Your task to perform on an android device: Search for sushi restaurants on Maps Image 0: 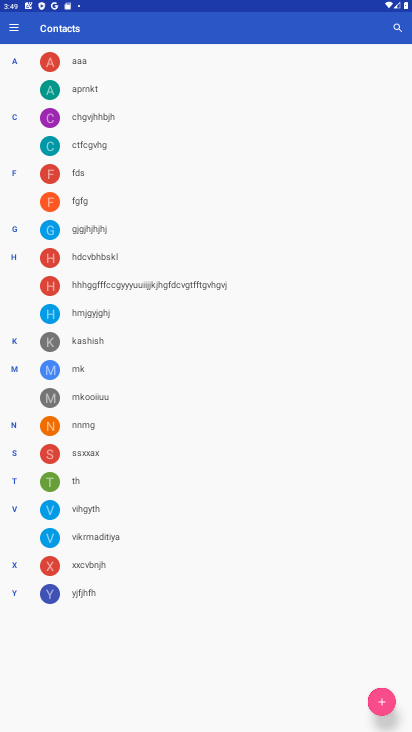
Step 0: press home button
Your task to perform on an android device: Search for sushi restaurants on Maps Image 1: 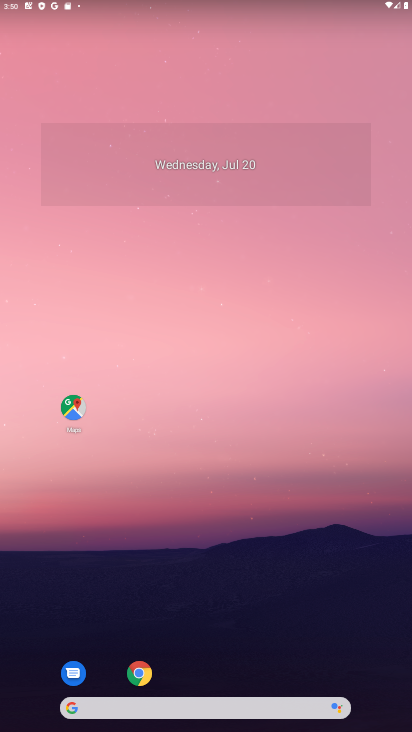
Step 1: drag from (249, 667) to (322, 5)
Your task to perform on an android device: Search for sushi restaurants on Maps Image 2: 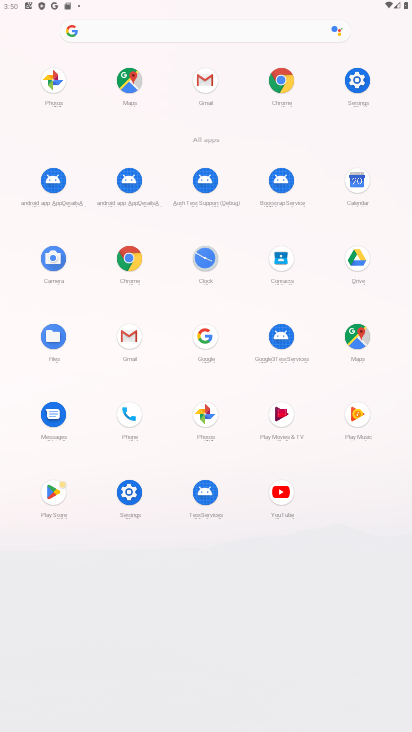
Step 2: click (129, 84)
Your task to perform on an android device: Search for sushi restaurants on Maps Image 3: 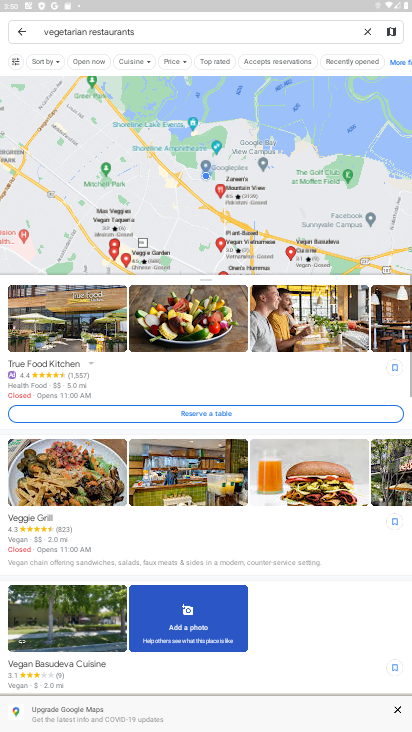
Step 3: click (20, 30)
Your task to perform on an android device: Search for sushi restaurants on Maps Image 4: 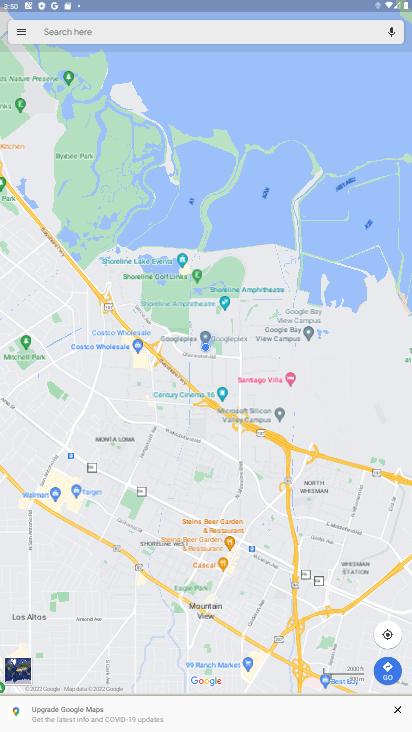
Step 4: click (100, 39)
Your task to perform on an android device: Search for sushi restaurants on Maps Image 5: 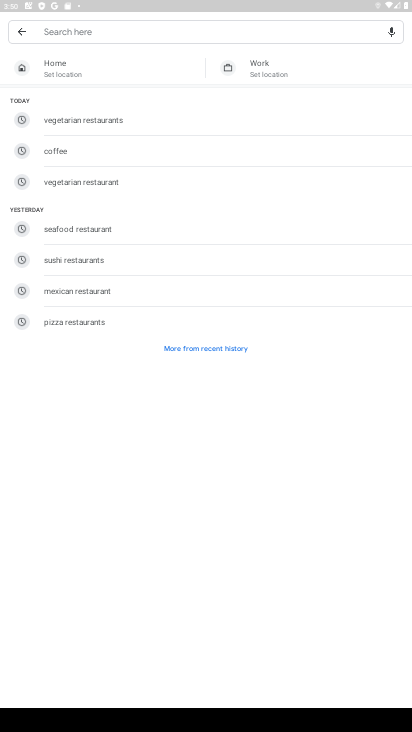
Step 5: click (65, 260)
Your task to perform on an android device: Search for sushi restaurants on Maps Image 6: 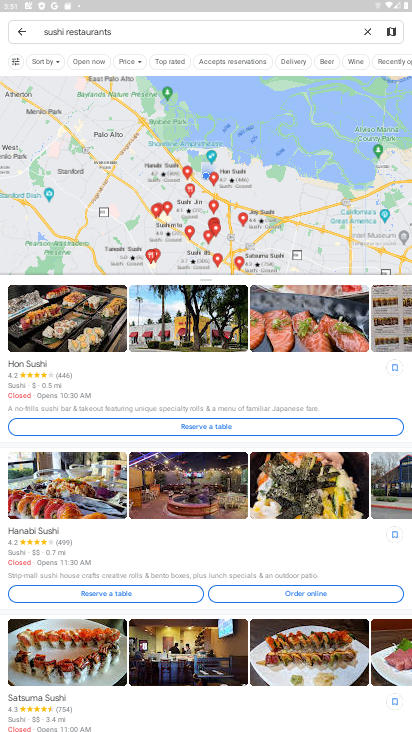
Step 6: task complete